Your task to perform on an android device: Go to Android settings Image 0: 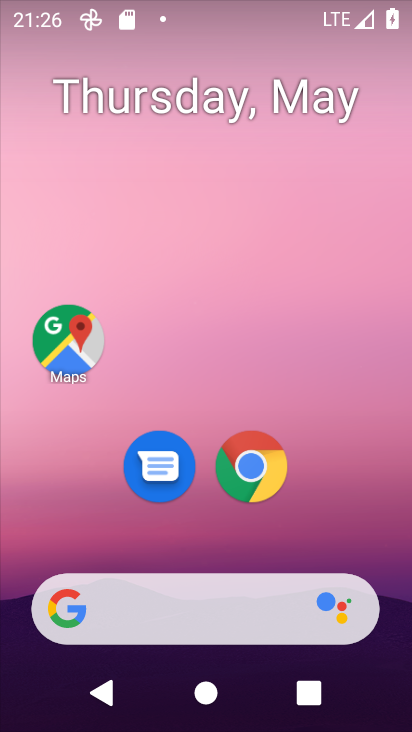
Step 0: drag from (331, 494) to (311, 56)
Your task to perform on an android device: Go to Android settings Image 1: 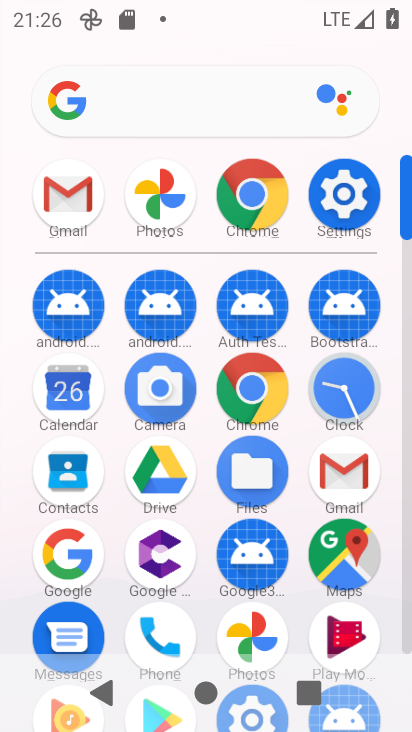
Step 1: click (335, 202)
Your task to perform on an android device: Go to Android settings Image 2: 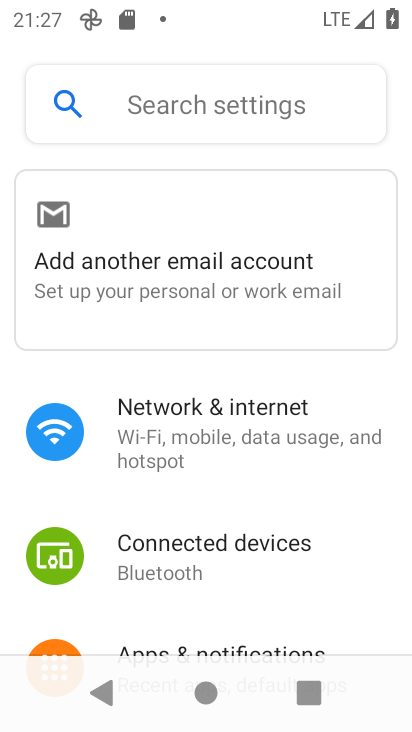
Step 2: task complete